Your task to perform on an android device: see creations saved in the google photos Image 0: 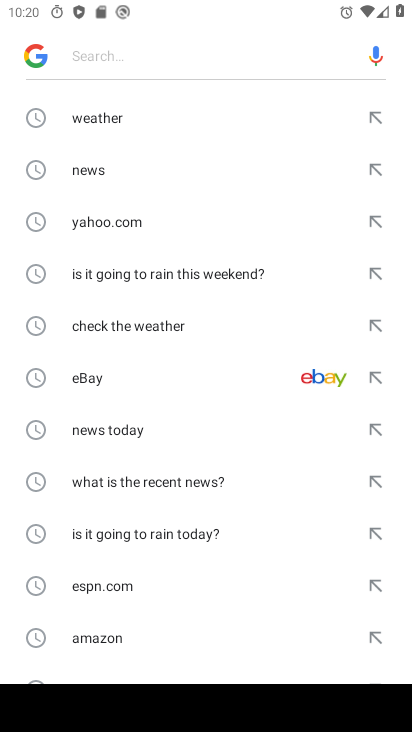
Step 0: press home button
Your task to perform on an android device: see creations saved in the google photos Image 1: 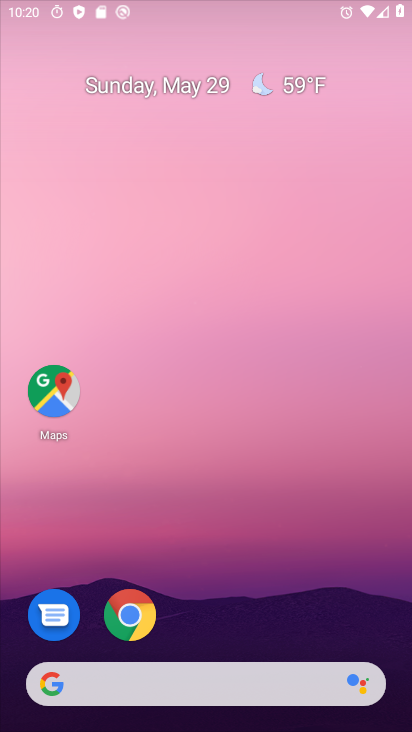
Step 1: drag from (224, 591) to (257, 68)
Your task to perform on an android device: see creations saved in the google photos Image 2: 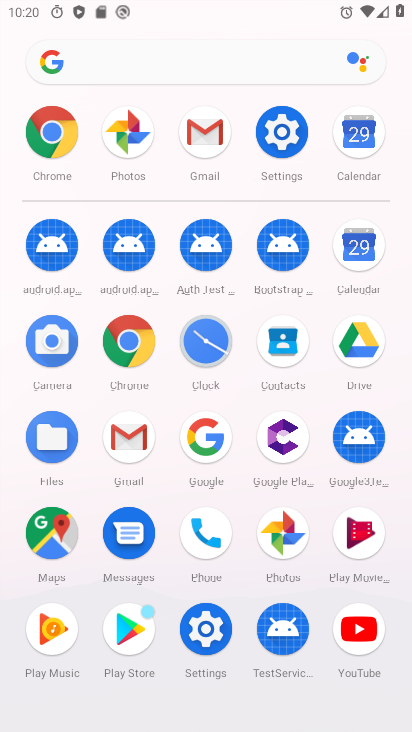
Step 2: click (128, 133)
Your task to perform on an android device: see creations saved in the google photos Image 3: 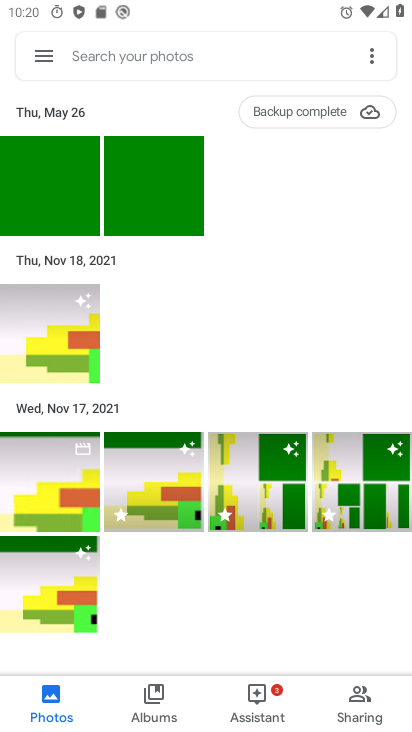
Step 3: click (38, 58)
Your task to perform on an android device: see creations saved in the google photos Image 4: 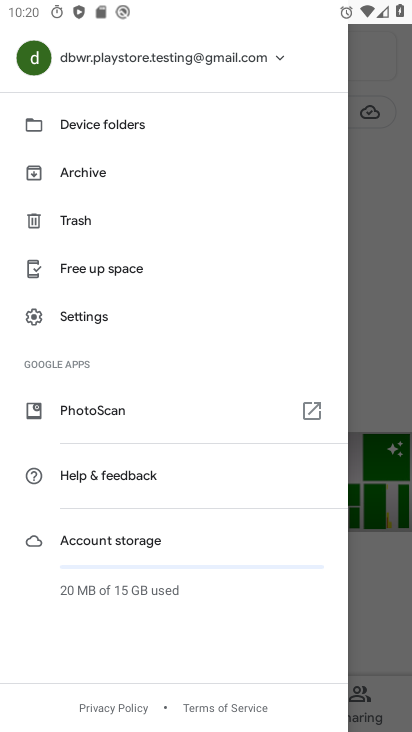
Step 4: click (362, 161)
Your task to perform on an android device: see creations saved in the google photos Image 5: 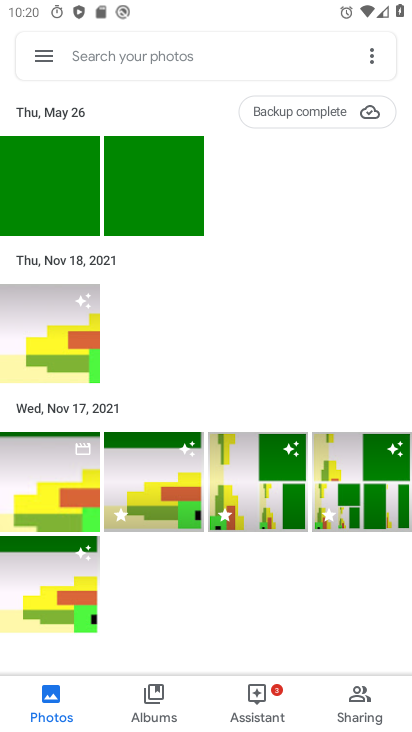
Step 5: click (148, 46)
Your task to perform on an android device: see creations saved in the google photos Image 6: 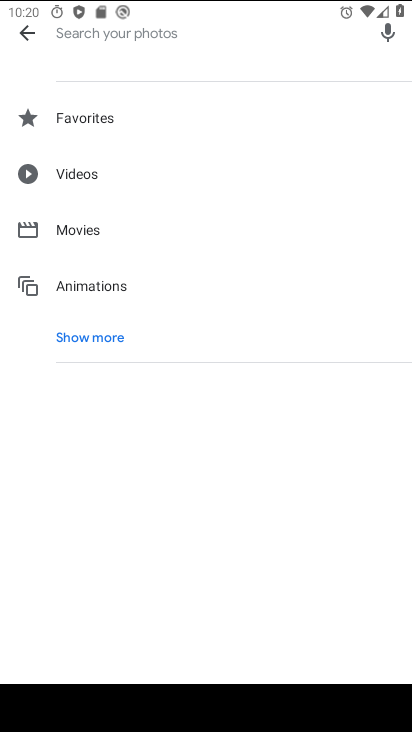
Step 6: click (87, 329)
Your task to perform on an android device: see creations saved in the google photos Image 7: 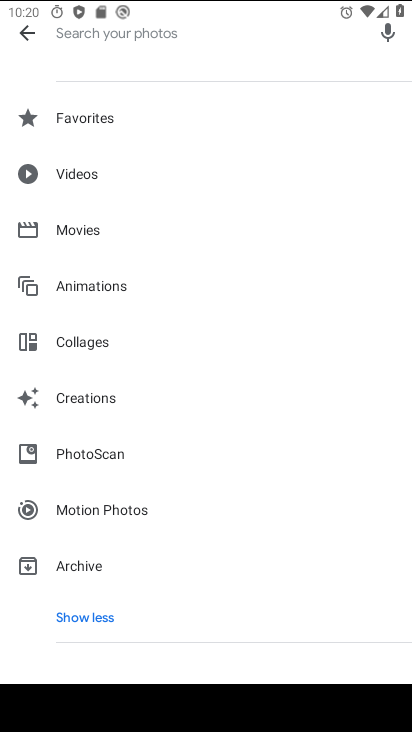
Step 7: click (87, 405)
Your task to perform on an android device: see creations saved in the google photos Image 8: 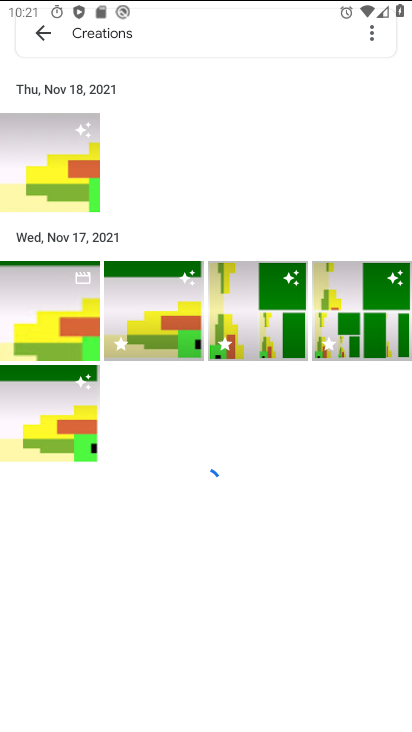
Step 8: task complete